Your task to perform on an android device: change notifications settings Image 0: 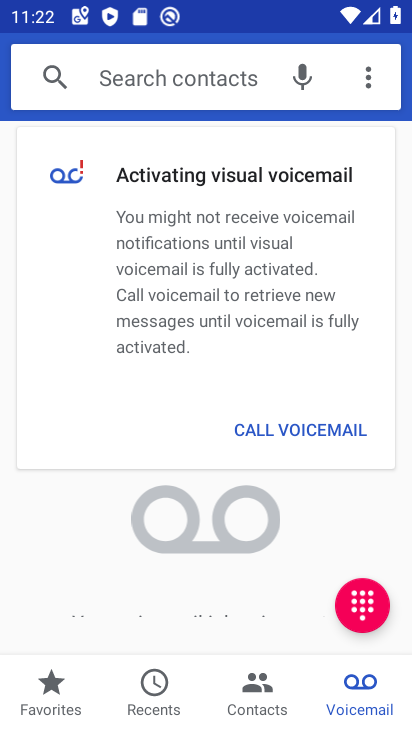
Step 0: press home button
Your task to perform on an android device: change notifications settings Image 1: 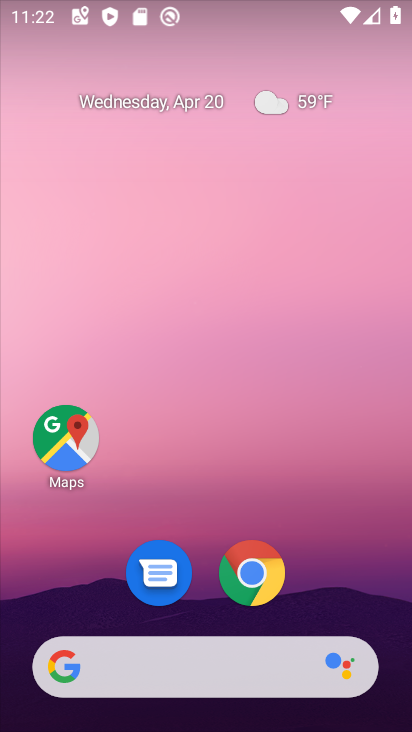
Step 1: drag from (345, 586) to (362, 6)
Your task to perform on an android device: change notifications settings Image 2: 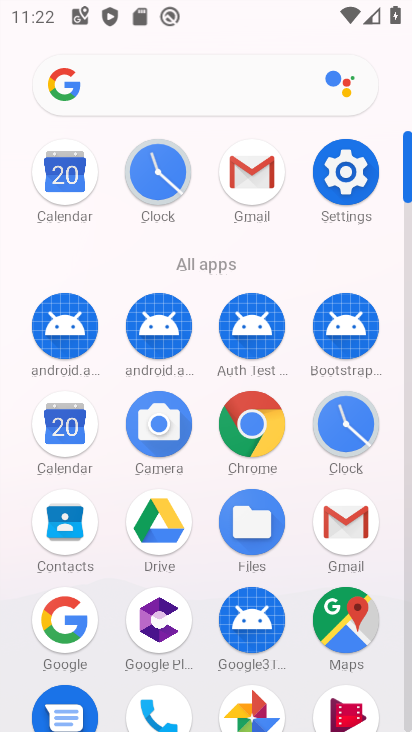
Step 2: click (348, 178)
Your task to perform on an android device: change notifications settings Image 3: 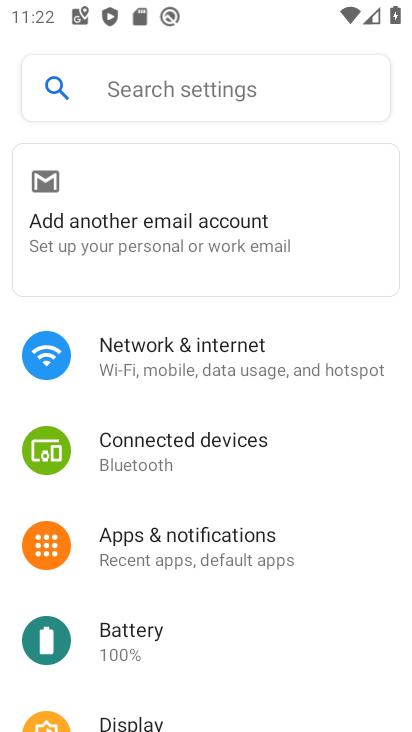
Step 3: click (179, 555)
Your task to perform on an android device: change notifications settings Image 4: 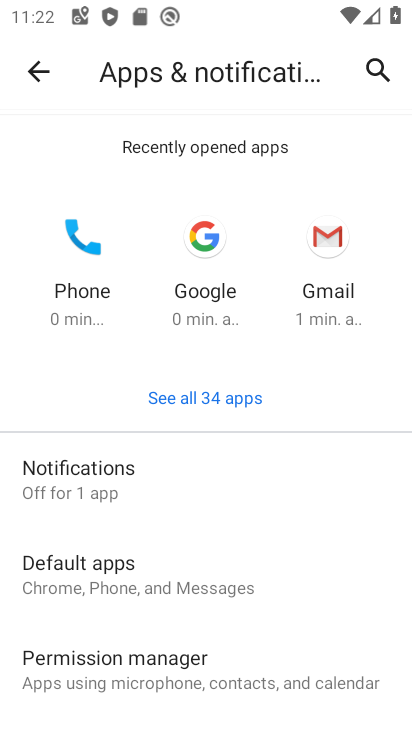
Step 4: click (84, 483)
Your task to perform on an android device: change notifications settings Image 5: 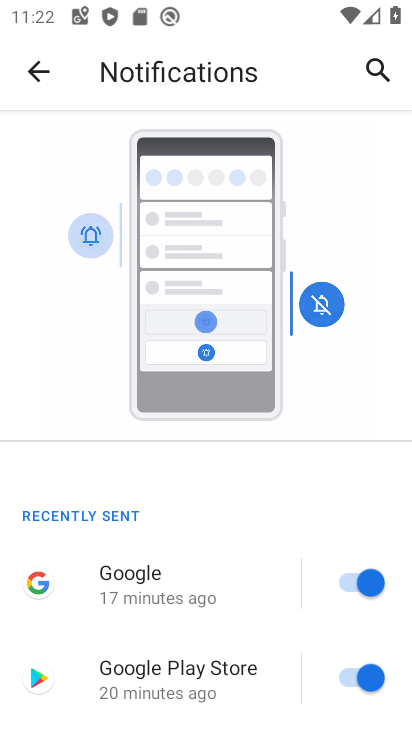
Step 5: drag from (183, 544) to (161, 66)
Your task to perform on an android device: change notifications settings Image 6: 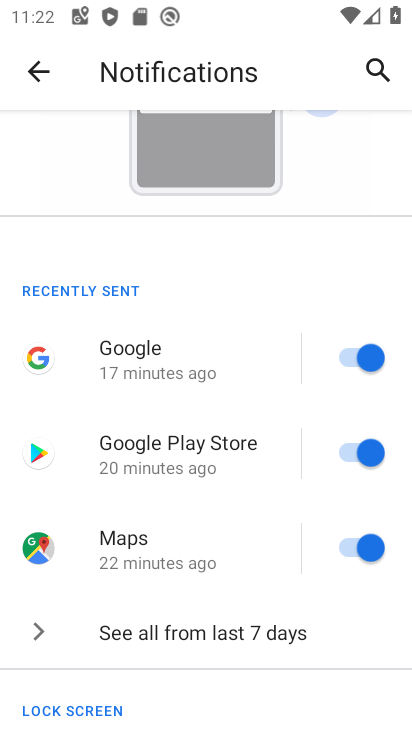
Step 6: drag from (245, 509) to (208, 97)
Your task to perform on an android device: change notifications settings Image 7: 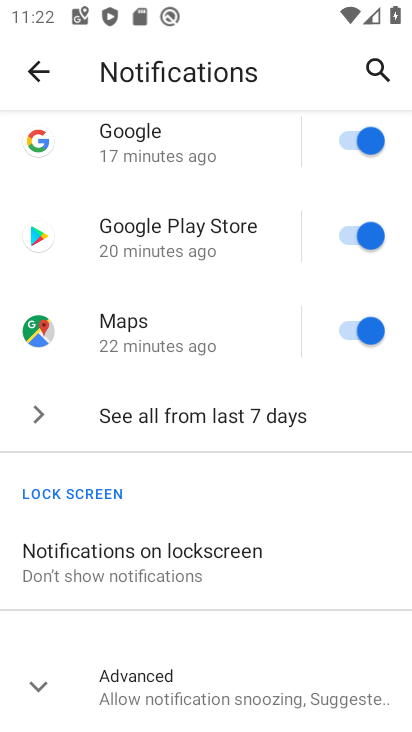
Step 7: click (170, 418)
Your task to perform on an android device: change notifications settings Image 8: 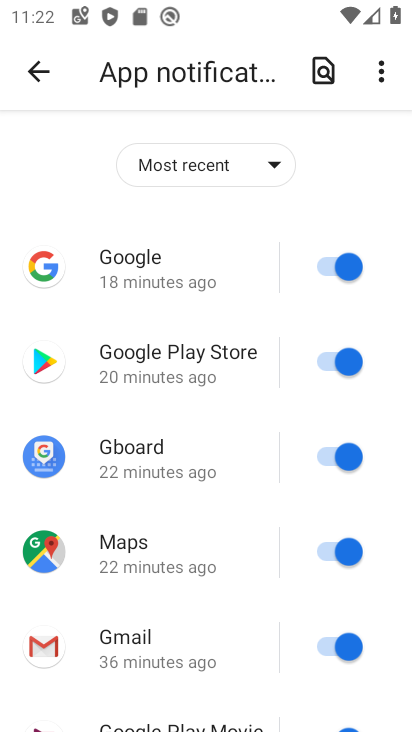
Step 8: click (267, 172)
Your task to perform on an android device: change notifications settings Image 9: 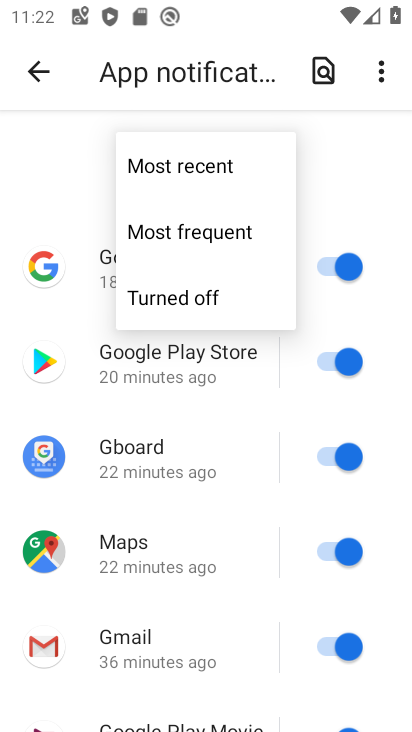
Step 9: click (171, 236)
Your task to perform on an android device: change notifications settings Image 10: 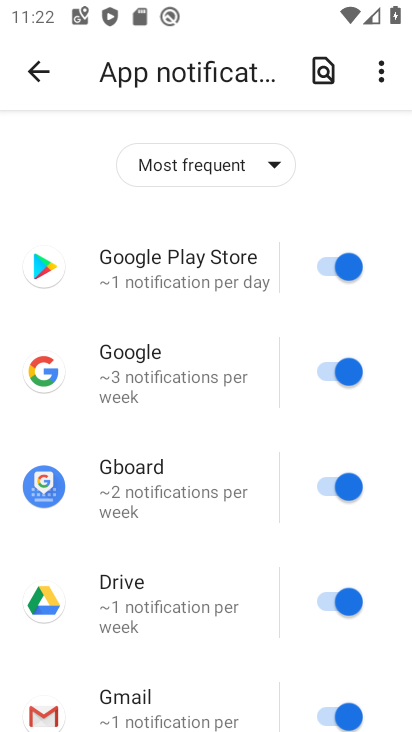
Step 10: task complete